Your task to perform on an android device: open a bookmark in the chrome app Image 0: 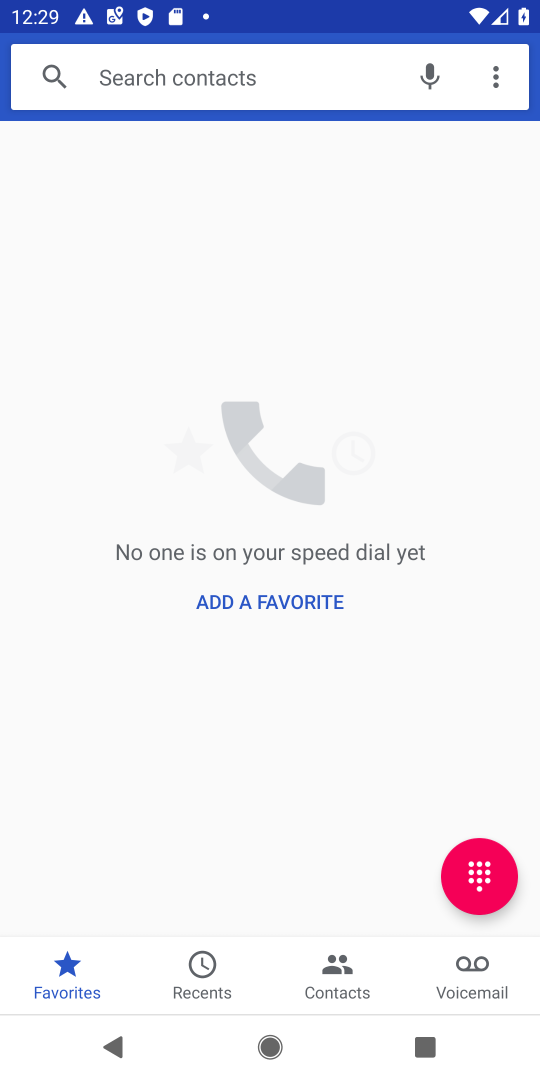
Step 0: press home button
Your task to perform on an android device: open a bookmark in the chrome app Image 1: 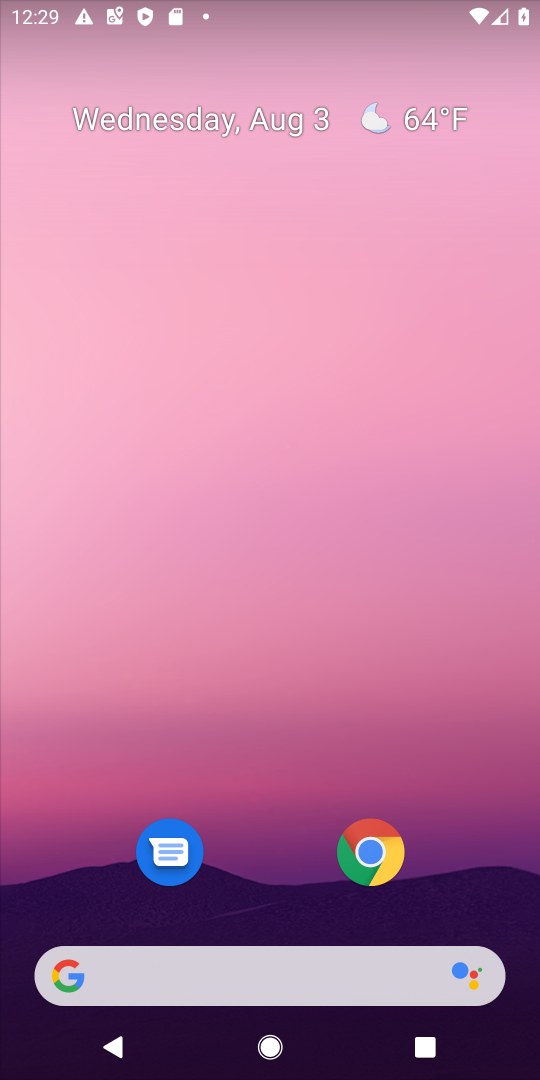
Step 1: drag from (415, 763) to (108, 124)
Your task to perform on an android device: open a bookmark in the chrome app Image 2: 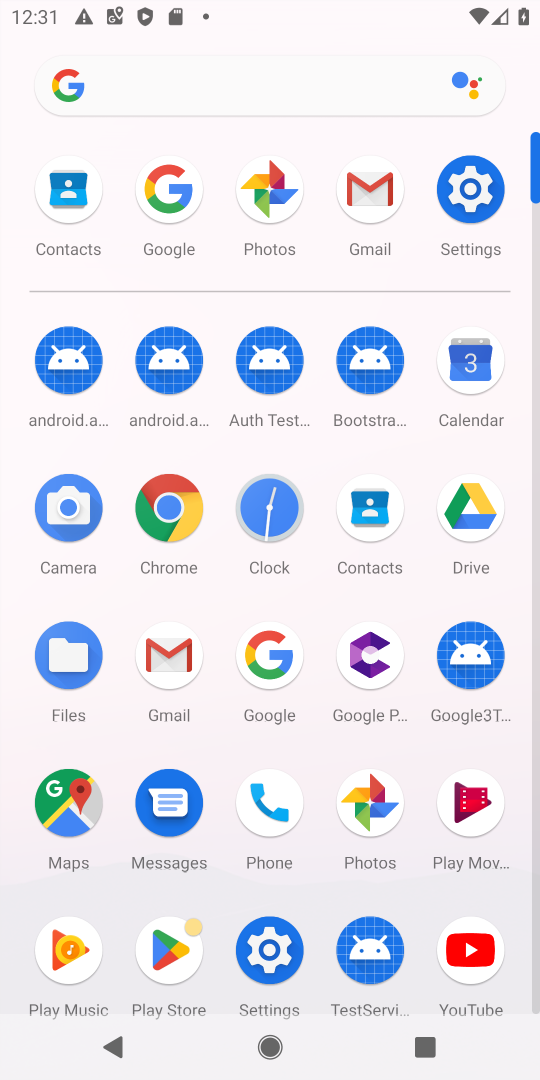
Step 2: click (163, 530)
Your task to perform on an android device: open a bookmark in the chrome app Image 3: 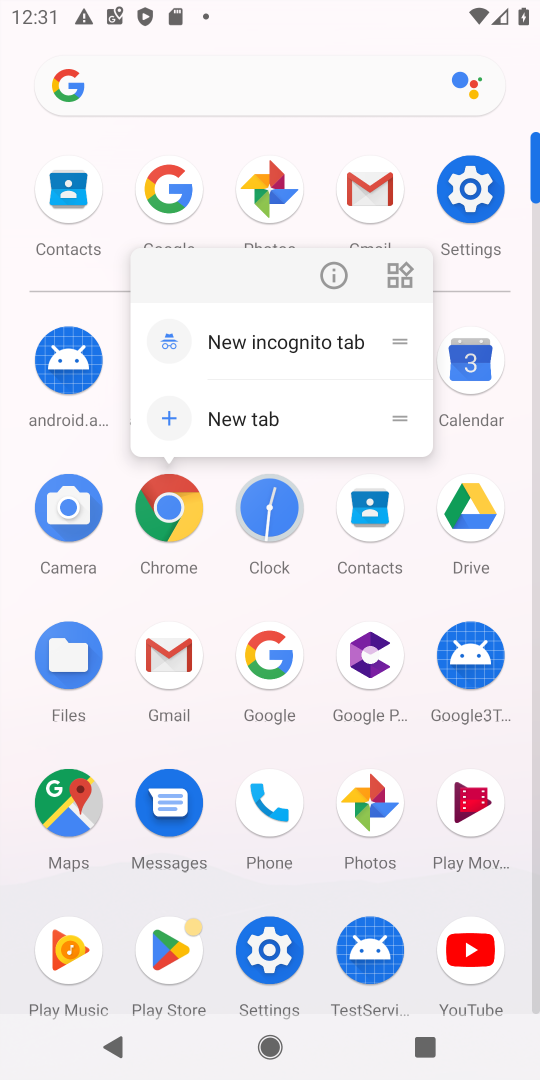
Step 3: click (163, 530)
Your task to perform on an android device: open a bookmark in the chrome app Image 4: 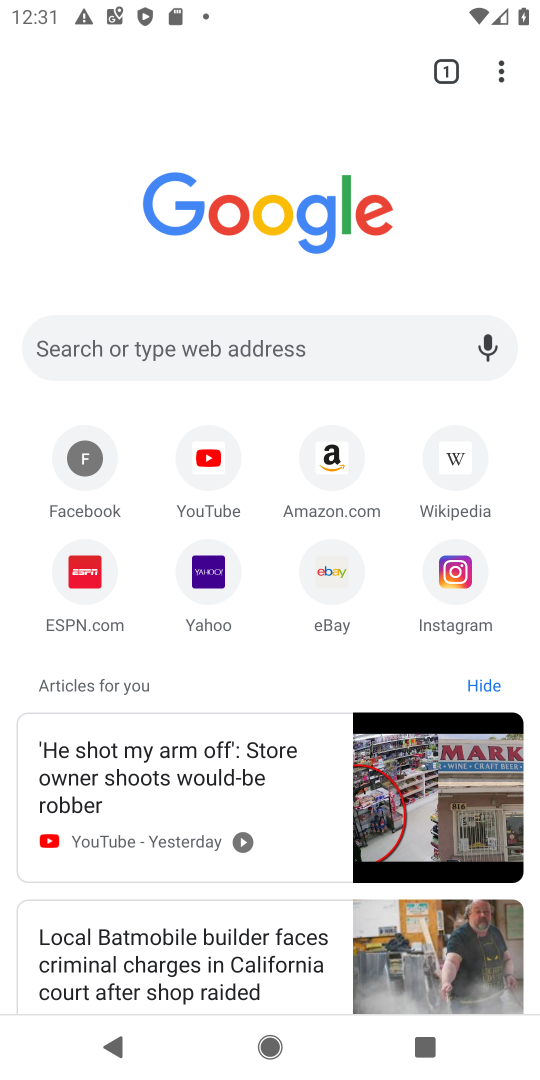
Step 4: click (498, 61)
Your task to perform on an android device: open a bookmark in the chrome app Image 5: 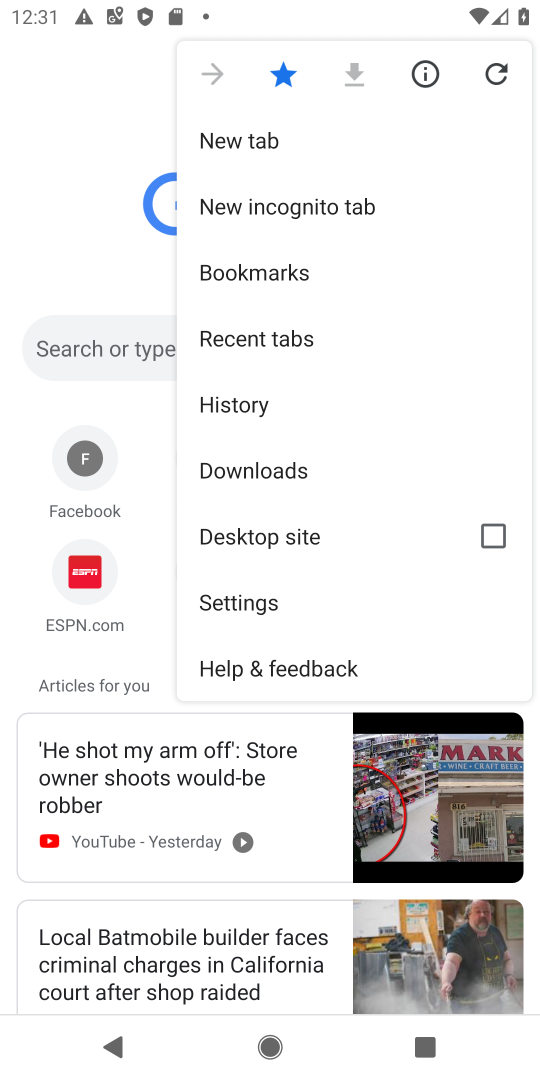
Step 5: click (295, 280)
Your task to perform on an android device: open a bookmark in the chrome app Image 6: 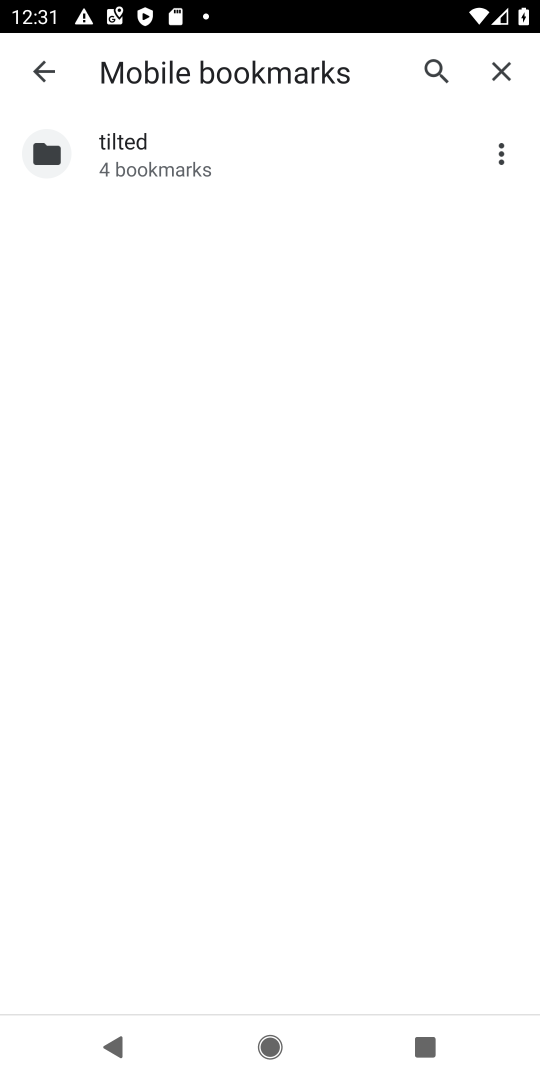
Step 6: task complete